Your task to perform on an android device: Check the news Image 0: 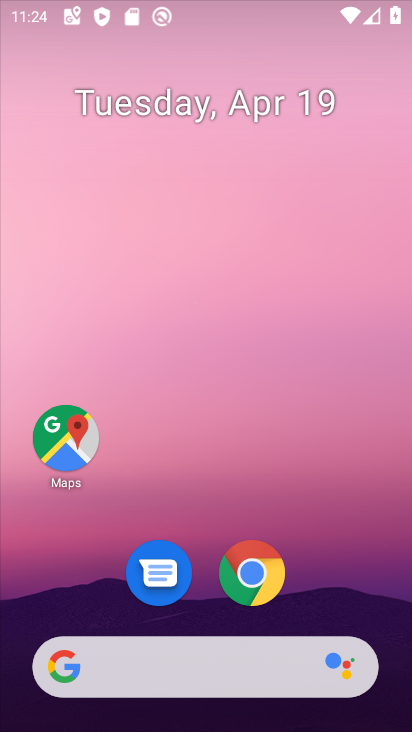
Step 0: drag from (351, 545) to (365, 96)
Your task to perform on an android device: Check the news Image 1: 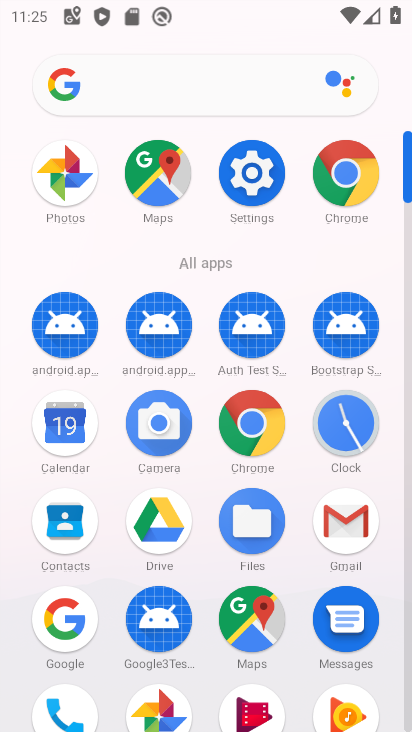
Step 1: click (189, 78)
Your task to perform on an android device: Check the news Image 2: 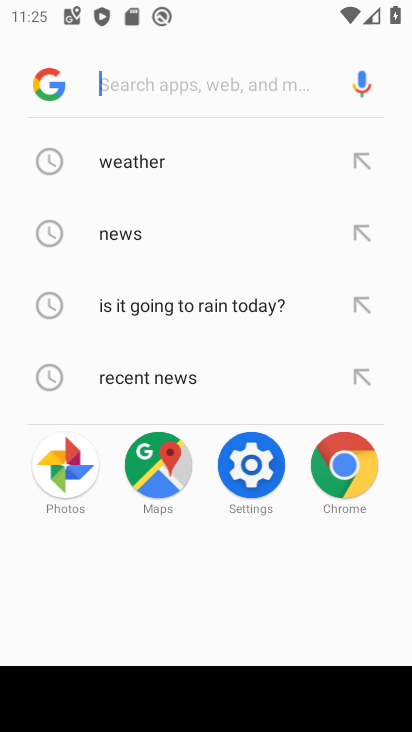
Step 2: type "news"
Your task to perform on an android device: Check the news Image 3: 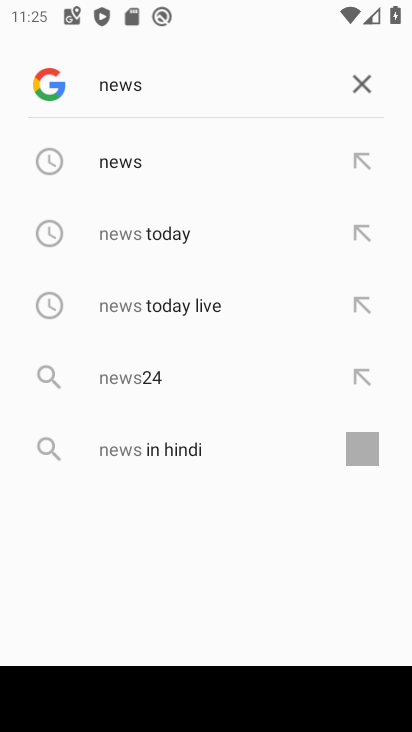
Step 3: click (123, 163)
Your task to perform on an android device: Check the news Image 4: 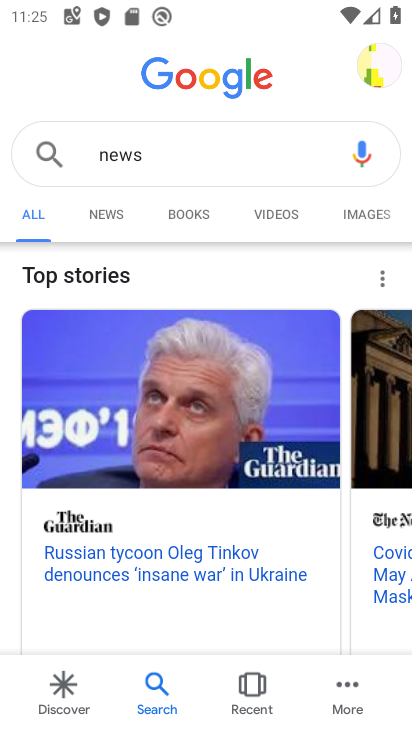
Step 4: task complete